Your task to perform on an android device: What is the recent news? Image 0: 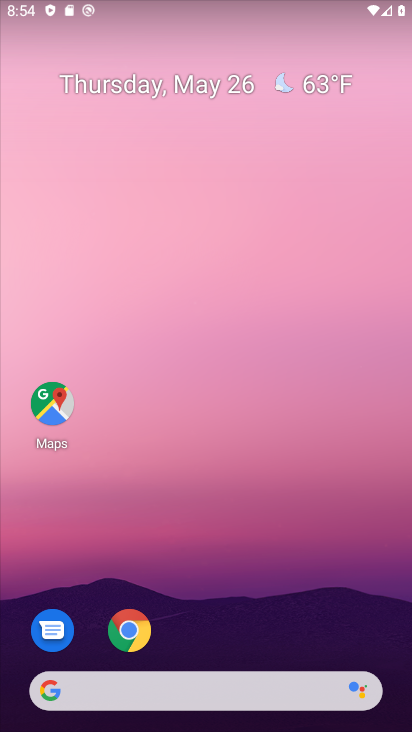
Step 0: drag from (279, 691) to (221, 239)
Your task to perform on an android device: What is the recent news? Image 1: 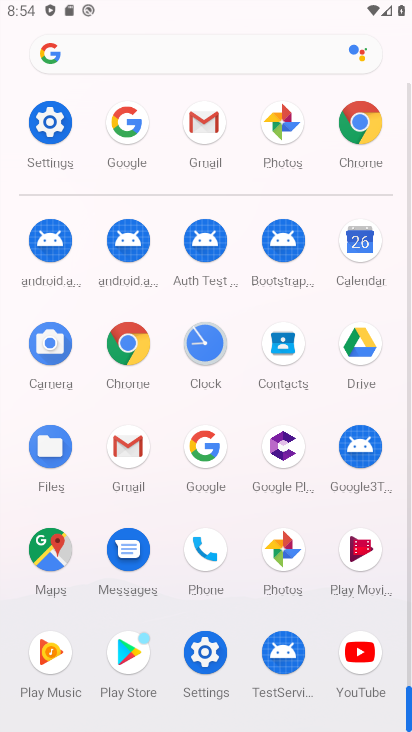
Step 1: task complete